Your task to perform on an android device: move a message to another label in the gmail app Image 0: 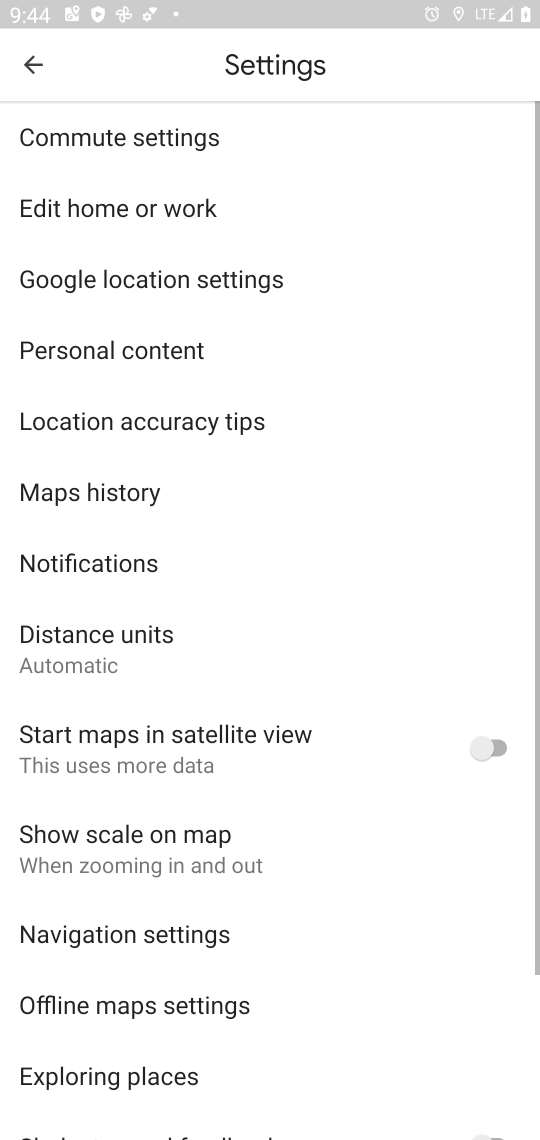
Step 0: press home button
Your task to perform on an android device: move a message to another label in the gmail app Image 1: 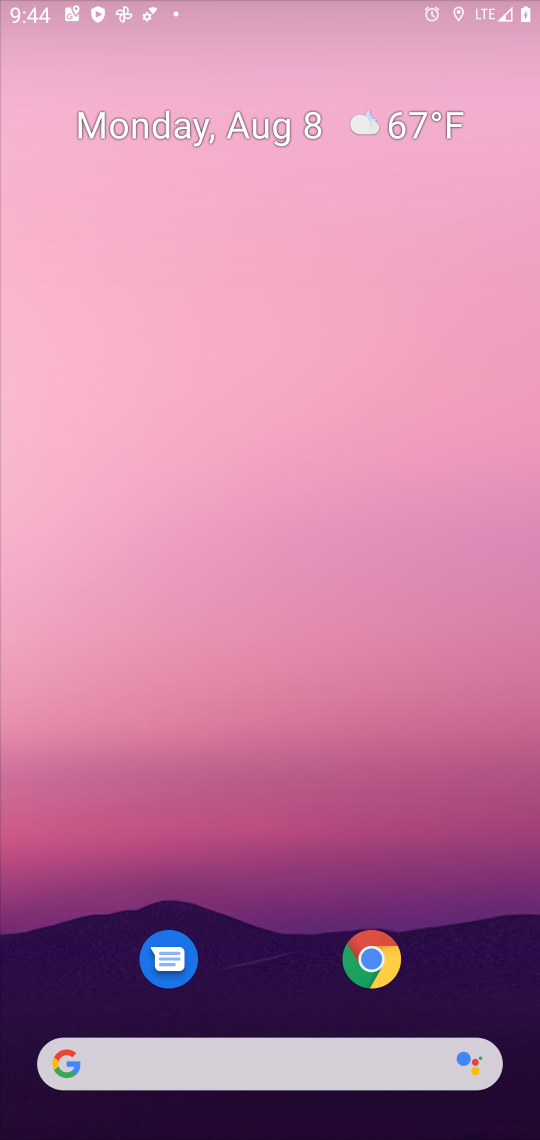
Step 1: drag from (517, 990) to (280, 62)
Your task to perform on an android device: move a message to another label in the gmail app Image 2: 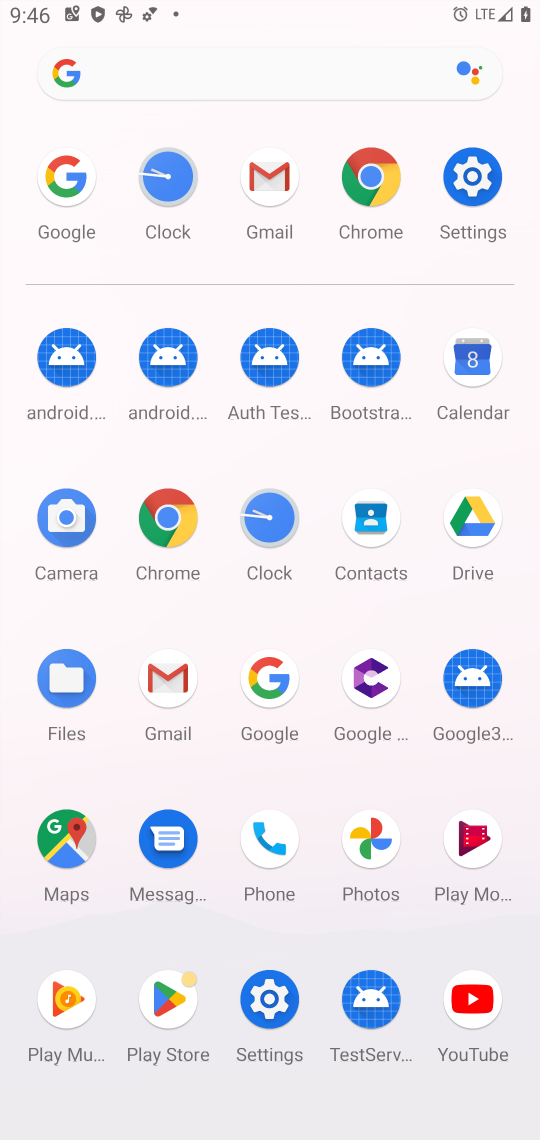
Step 2: click (158, 675)
Your task to perform on an android device: move a message to another label in the gmail app Image 3: 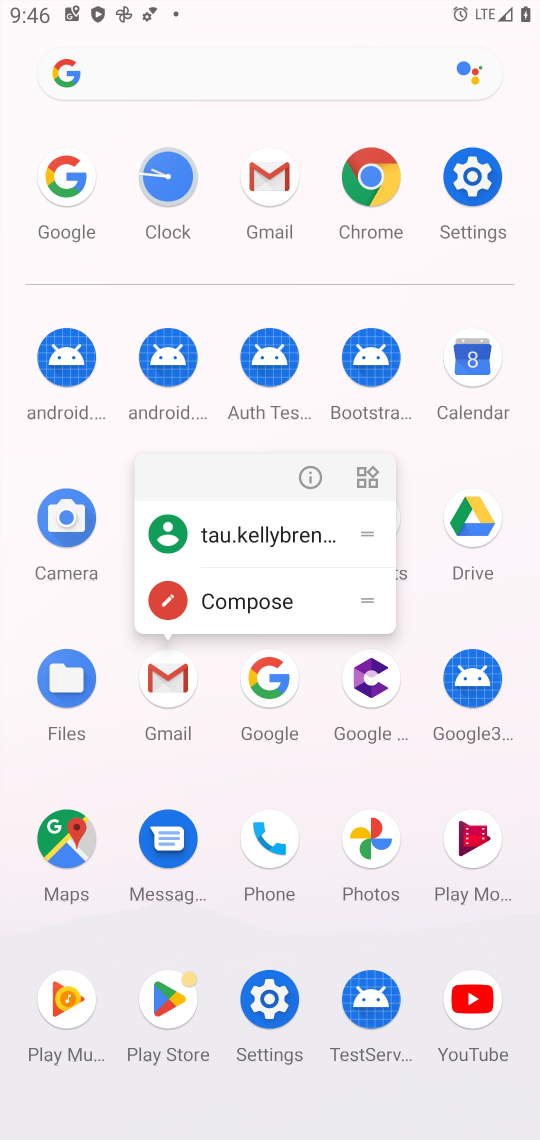
Step 3: click (158, 675)
Your task to perform on an android device: move a message to another label in the gmail app Image 4: 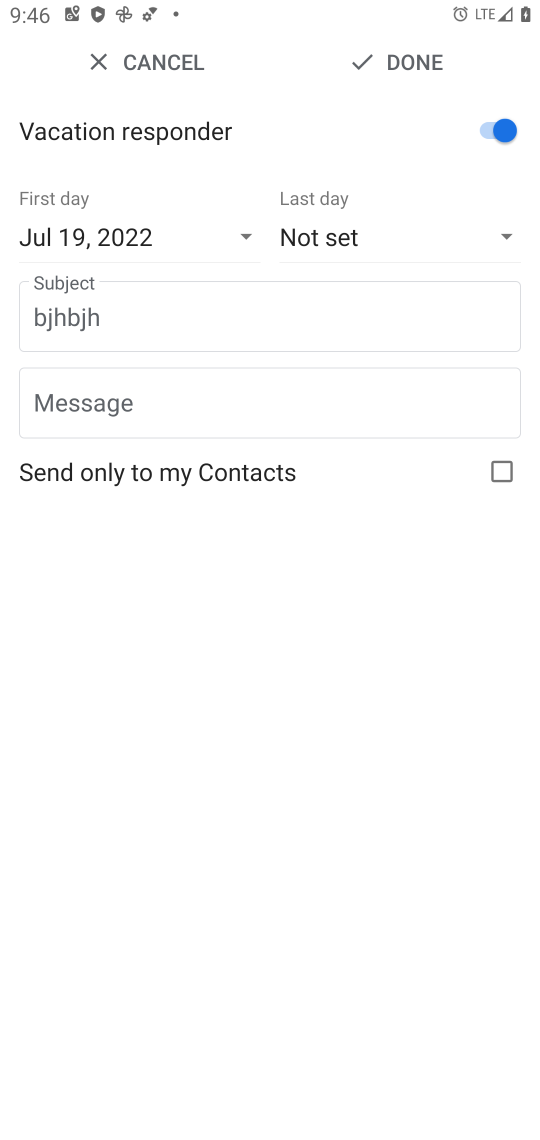
Step 4: task complete